Your task to perform on an android device: Go to notification settings Image 0: 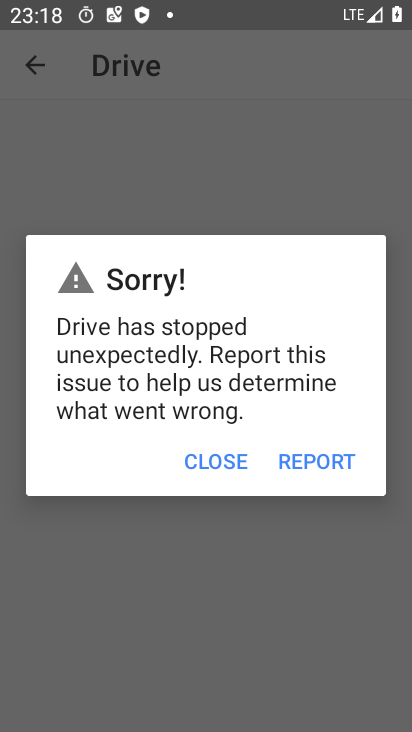
Step 0: press home button
Your task to perform on an android device: Go to notification settings Image 1: 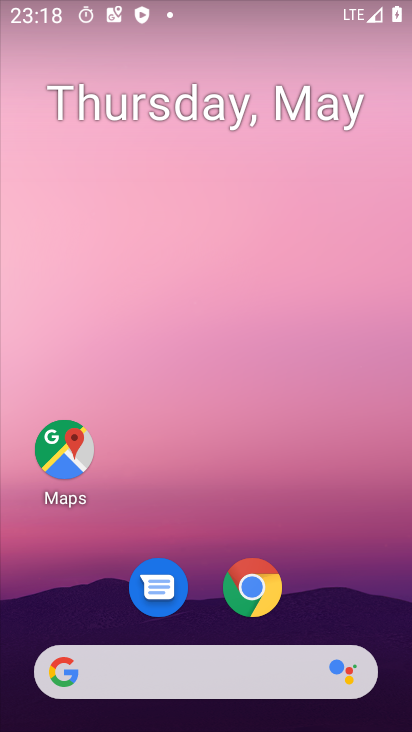
Step 1: drag from (326, 625) to (270, 2)
Your task to perform on an android device: Go to notification settings Image 2: 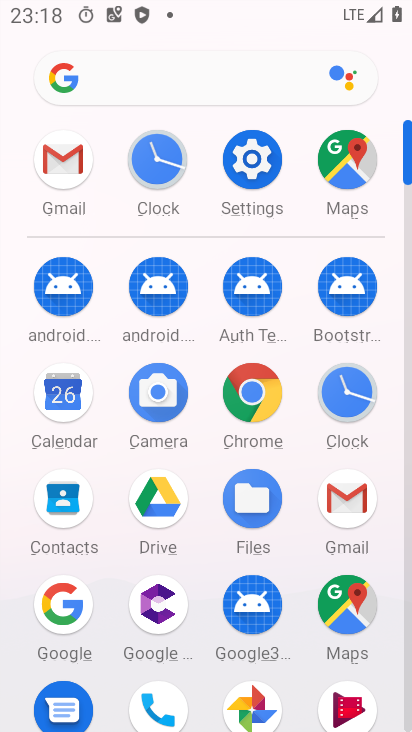
Step 2: click (253, 155)
Your task to perform on an android device: Go to notification settings Image 3: 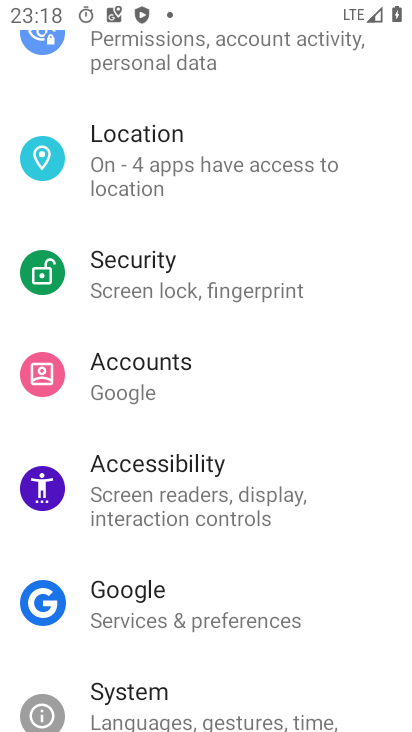
Step 3: drag from (243, 185) to (258, 464)
Your task to perform on an android device: Go to notification settings Image 4: 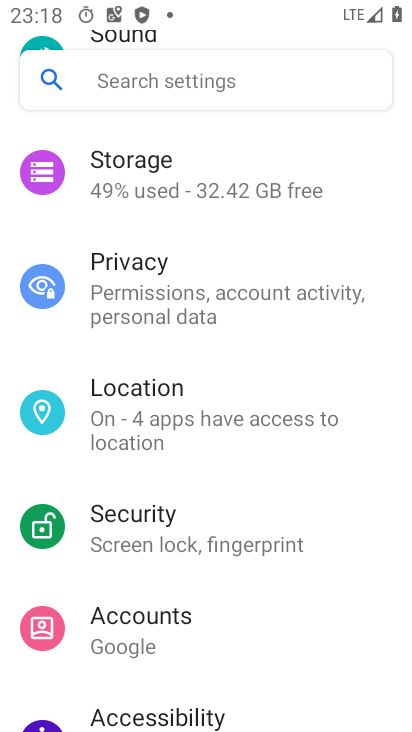
Step 4: drag from (209, 188) to (224, 538)
Your task to perform on an android device: Go to notification settings Image 5: 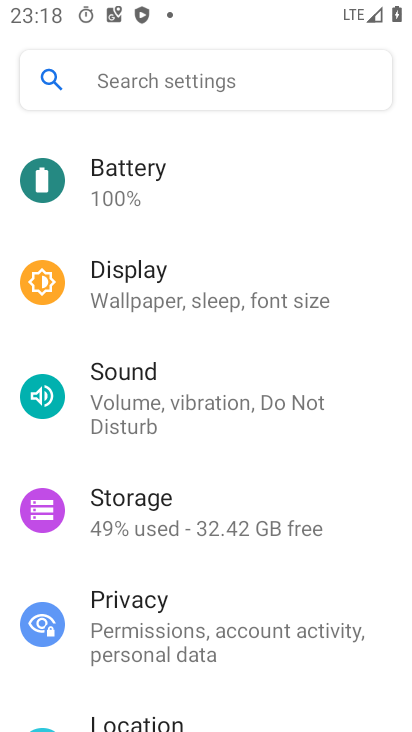
Step 5: drag from (251, 232) to (228, 590)
Your task to perform on an android device: Go to notification settings Image 6: 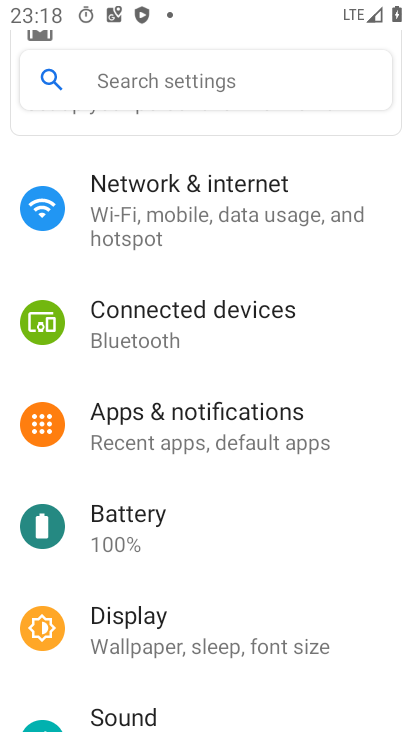
Step 6: click (189, 431)
Your task to perform on an android device: Go to notification settings Image 7: 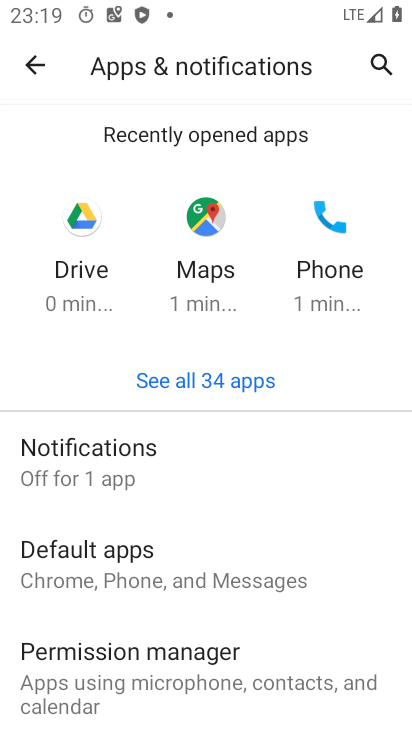
Step 7: task complete